Your task to perform on an android device: Go to notification settings Image 0: 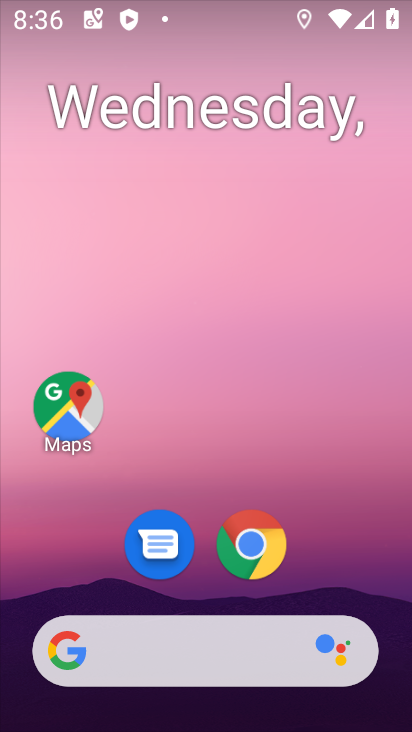
Step 0: drag from (224, 505) to (282, 93)
Your task to perform on an android device: Go to notification settings Image 1: 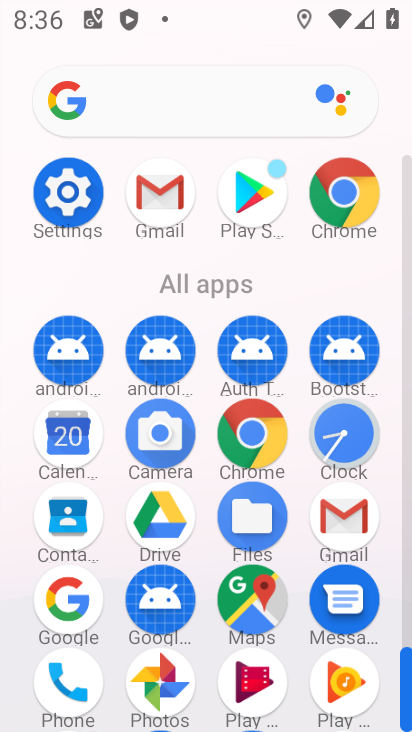
Step 1: click (71, 189)
Your task to perform on an android device: Go to notification settings Image 2: 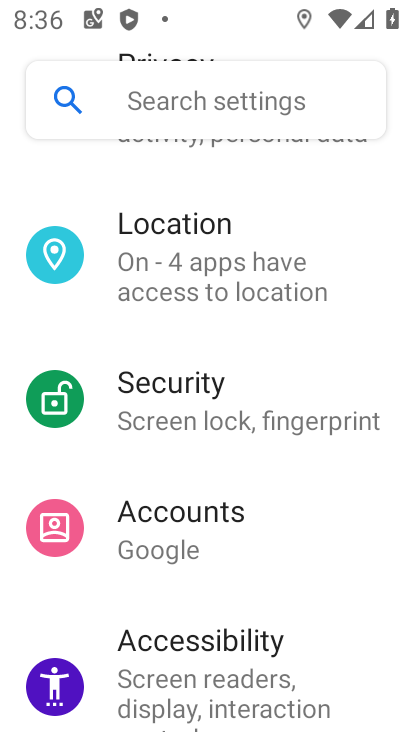
Step 2: drag from (266, 246) to (213, 723)
Your task to perform on an android device: Go to notification settings Image 3: 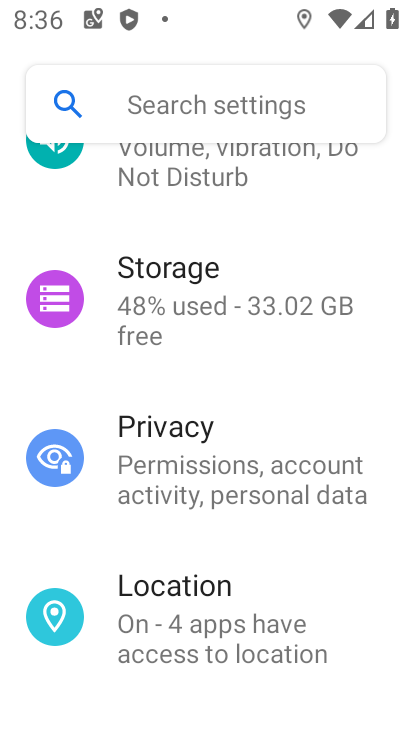
Step 3: drag from (233, 207) to (178, 705)
Your task to perform on an android device: Go to notification settings Image 4: 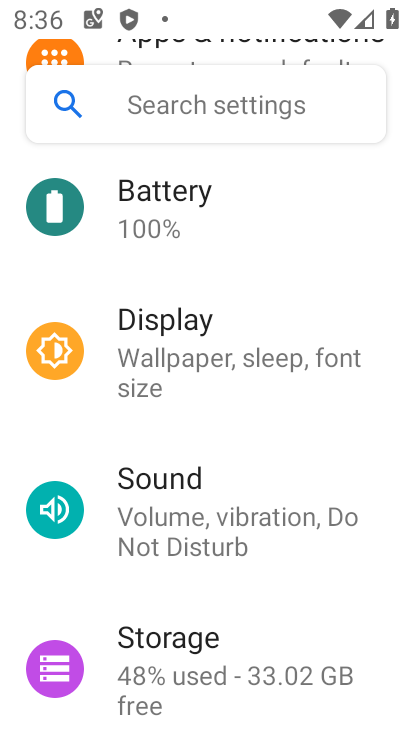
Step 4: drag from (230, 222) to (184, 643)
Your task to perform on an android device: Go to notification settings Image 5: 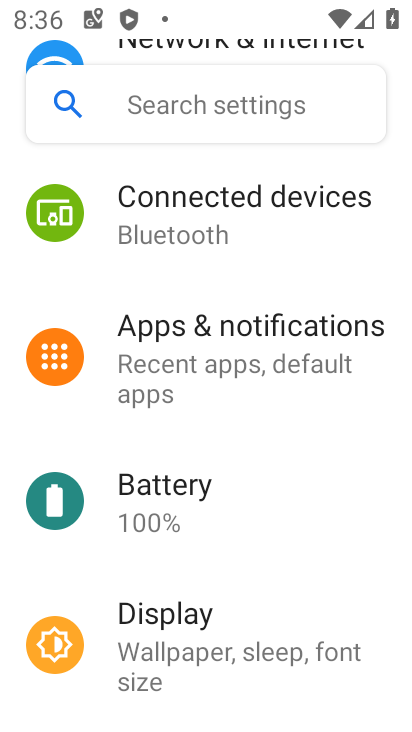
Step 5: click (193, 307)
Your task to perform on an android device: Go to notification settings Image 6: 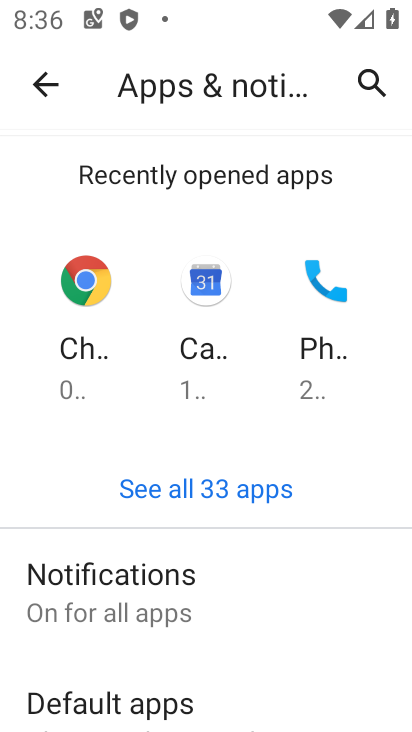
Step 6: click (149, 619)
Your task to perform on an android device: Go to notification settings Image 7: 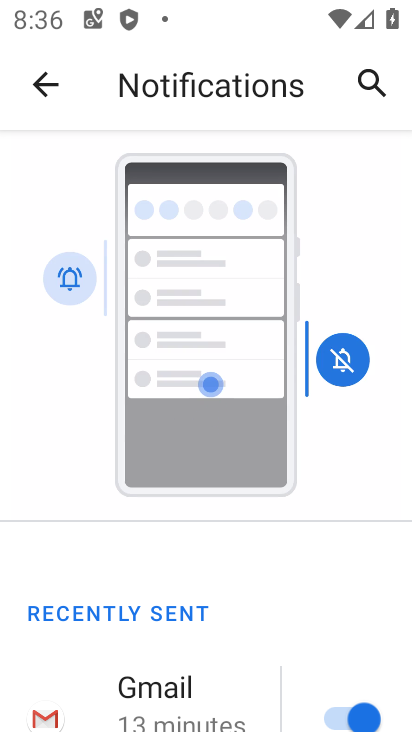
Step 7: task complete